Your task to perform on an android device: turn on showing notifications on the lock screen Image 0: 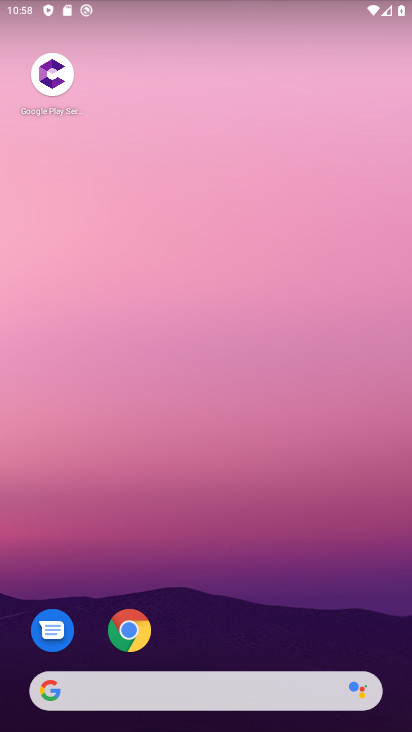
Step 0: drag from (227, 646) to (331, 69)
Your task to perform on an android device: turn on showing notifications on the lock screen Image 1: 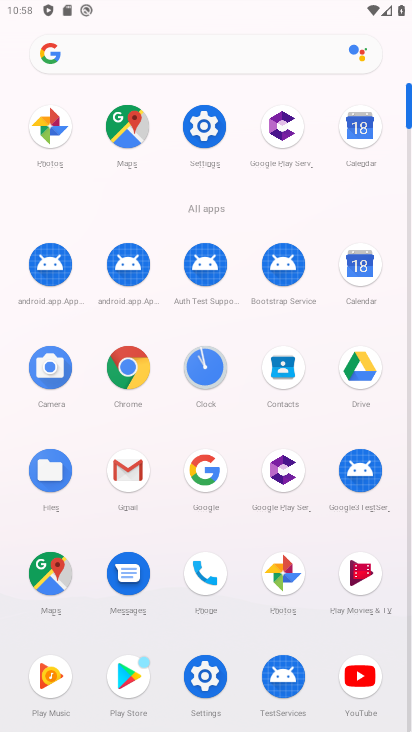
Step 1: click (222, 694)
Your task to perform on an android device: turn on showing notifications on the lock screen Image 2: 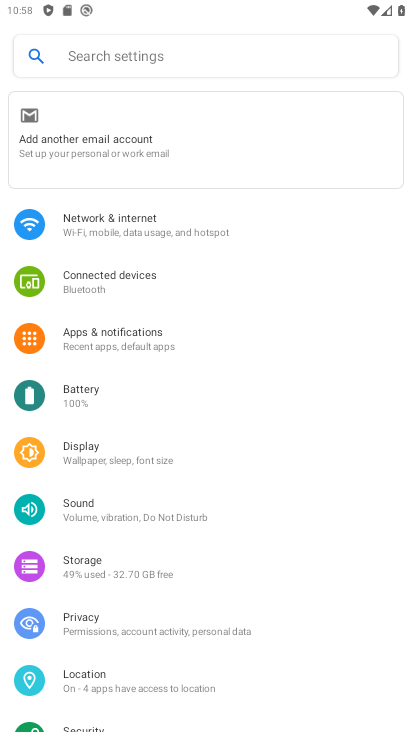
Step 2: click (152, 345)
Your task to perform on an android device: turn on showing notifications on the lock screen Image 3: 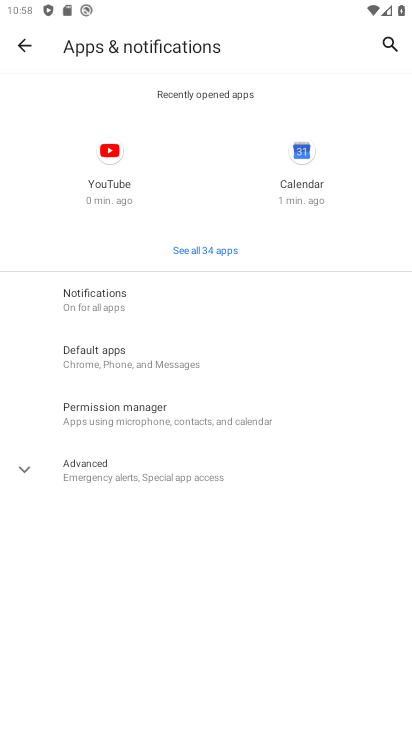
Step 3: click (133, 304)
Your task to perform on an android device: turn on showing notifications on the lock screen Image 4: 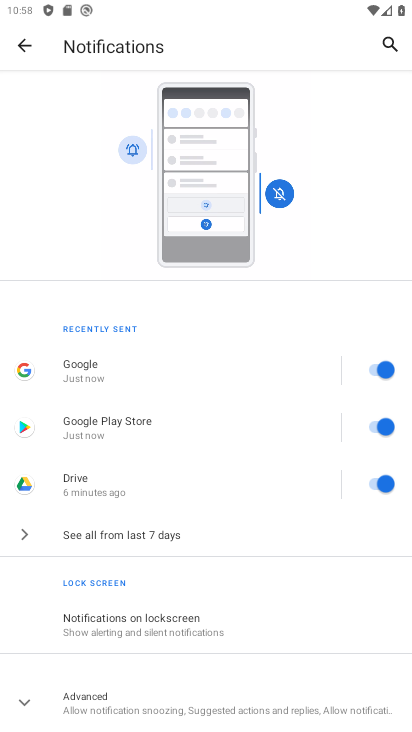
Step 4: drag from (148, 585) to (160, 472)
Your task to perform on an android device: turn on showing notifications on the lock screen Image 5: 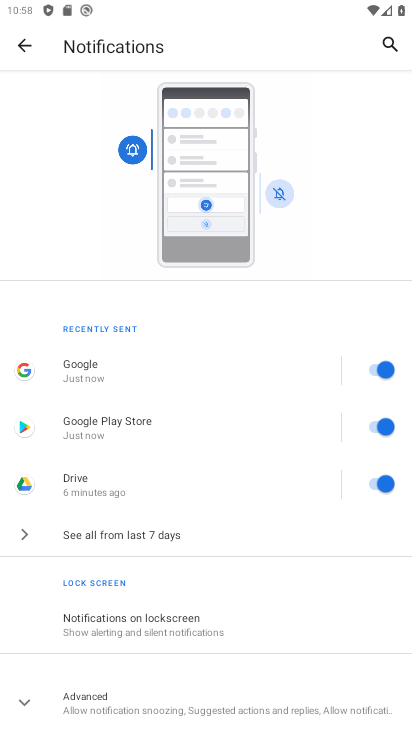
Step 5: click (145, 626)
Your task to perform on an android device: turn on showing notifications on the lock screen Image 6: 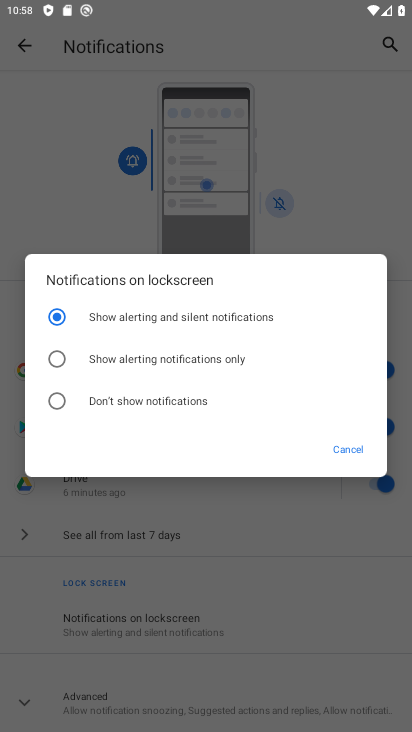
Step 6: task complete